Your task to perform on an android device: empty trash in the gmail app Image 0: 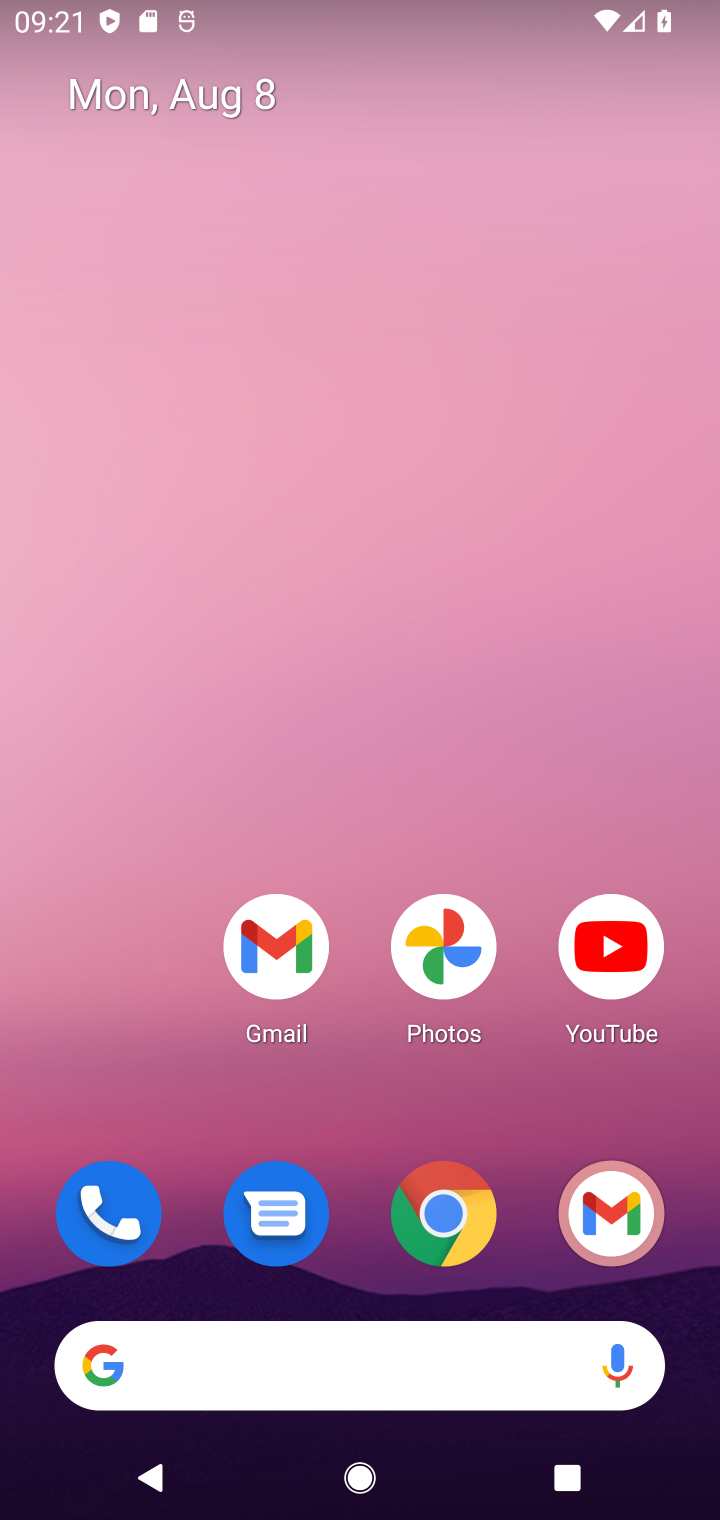
Step 0: drag from (356, 1074) to (403, 277)
Your task to perform on an android device: empty trash in the gmail app Image 1: 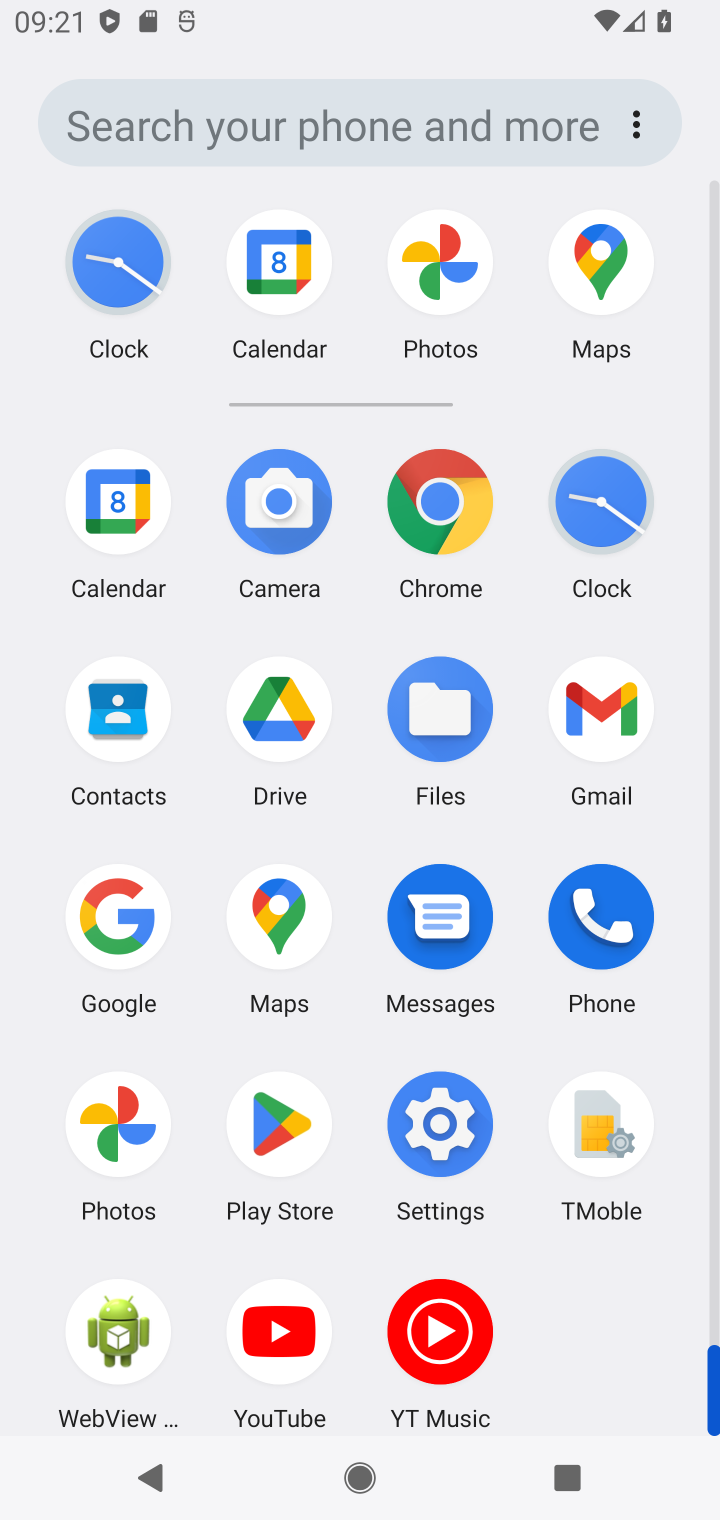
Step 1: click (597, 754)
Your task to perform on an android device: empty trash in the gmail app Image 2: 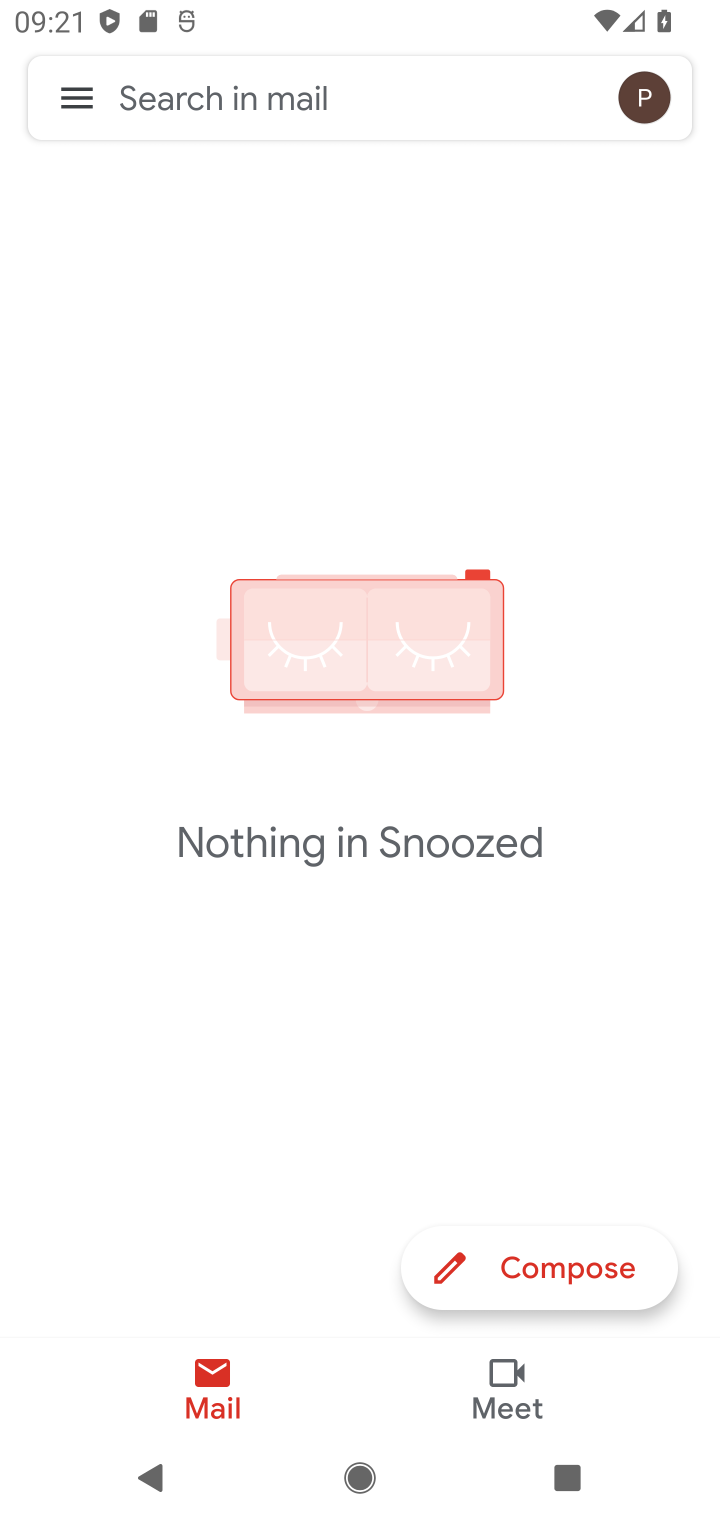
Step 2: click (75, 102)
Your task to perform on an android device: empty trash in the gmail app Image 3: 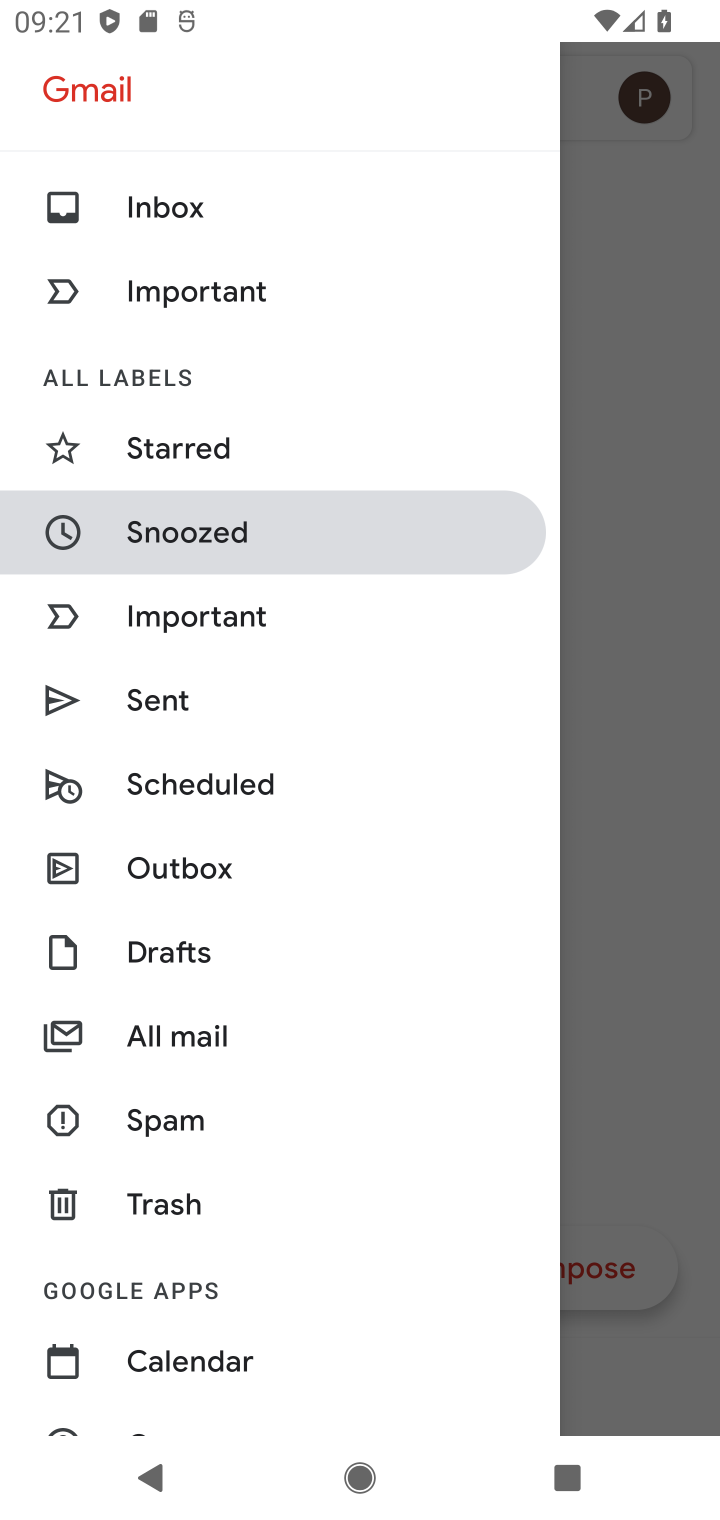
Step 3: click (217, 1204)
Your task to perform on an android device: empty trash in the gmail app Image 4: 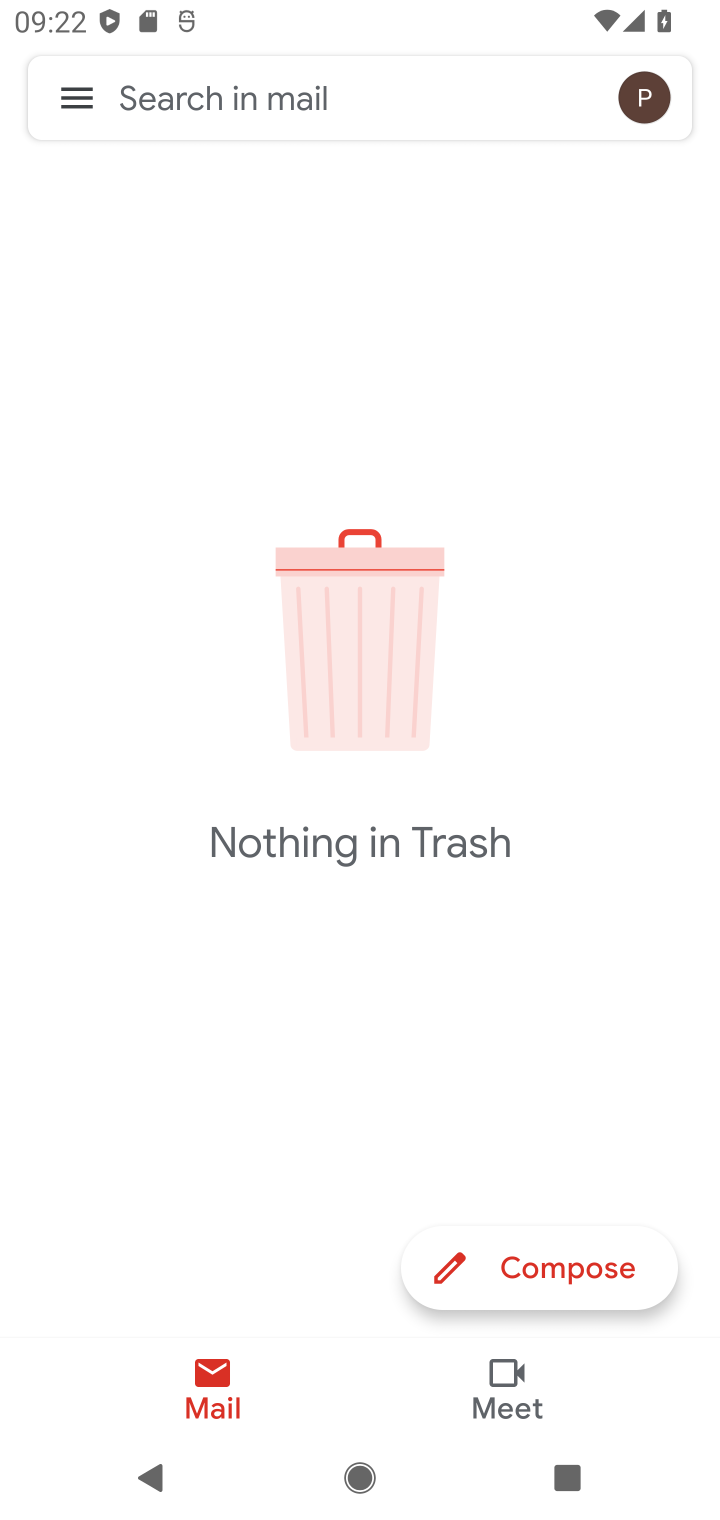
Step 4: task complete